Your task to perform on an android device: Open calendar and show me the second week of next month Image 0: 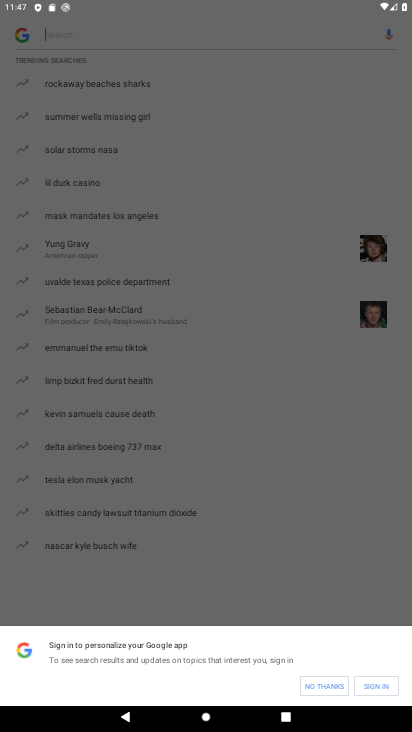
Step 0: press home button
Your task to perform on an android device: Open calendar and show me the second week of next month Image 1: 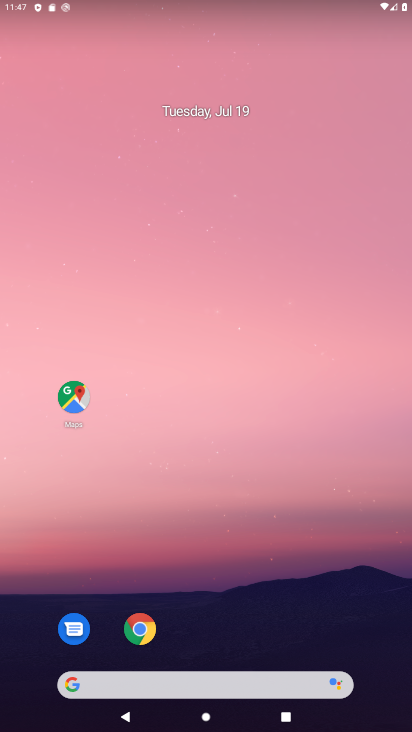
Step 1: drag from (254, 590) to (232, 181)
Your task to perform on an android device: Open calendar and show me the second week of next month Image 2: 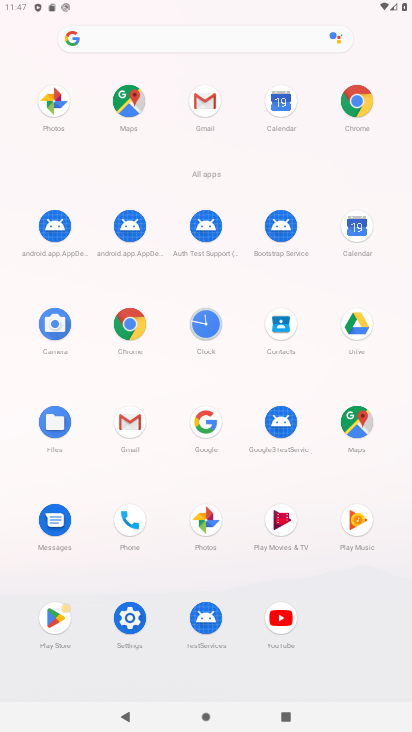
Step 2: click (358, 230)
Your task to perform on an android device: Open calendar and show me the second week of next month Image 3: 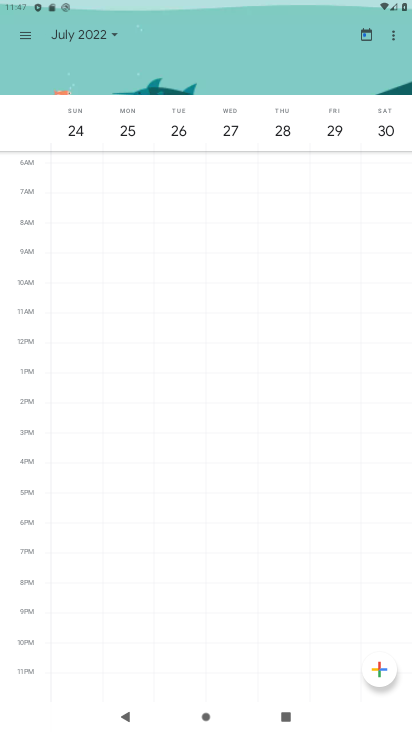
Step 3: click (25, 41)
Your task to perform on an android device: Open calendar and show me the second week of next month Image 4: 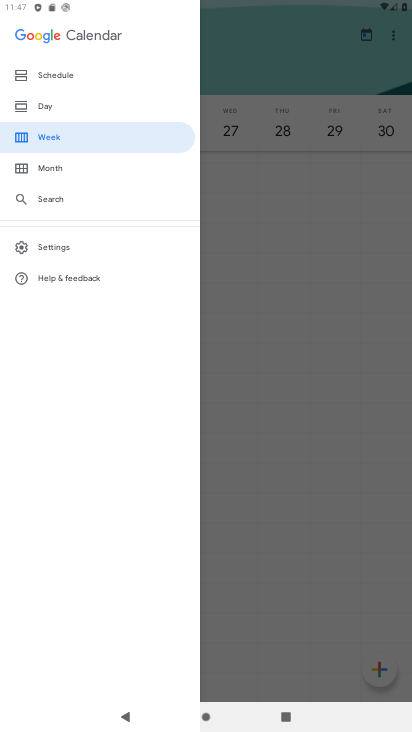
Step 4: click (63, 133)
Your task to perform on an android device: Open calendar and show me the second week of next month Image 5: 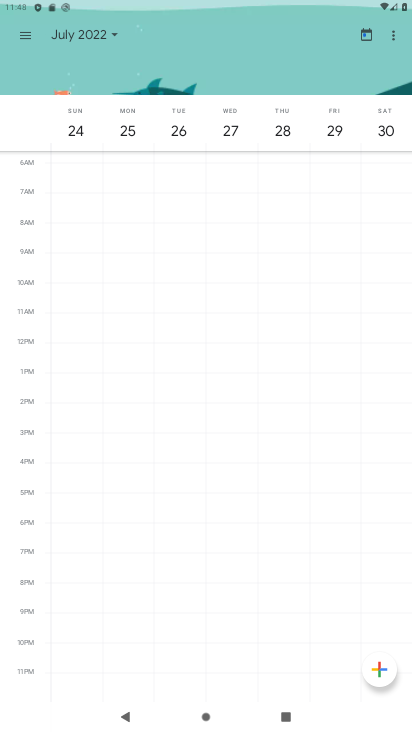
Step 5: click (112, 29)
Your task to perform on an android device: Open calendar and show me the second week of next month Image 6: 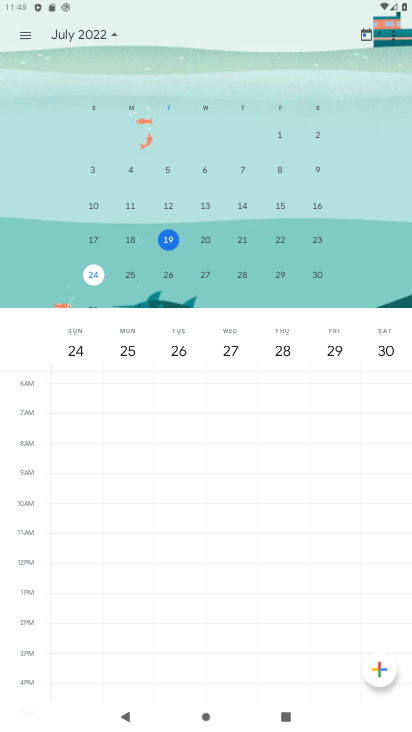
Step 6: drag from (301, 216) to (69, 192)
Your task to perform on an android device: Open calendar and show me the second week of next month Image 7: 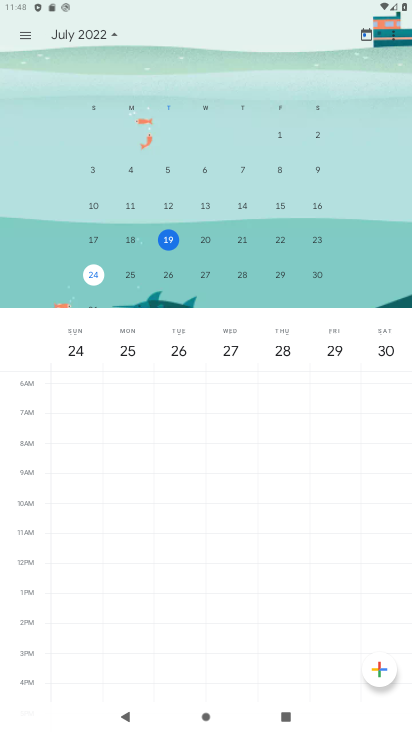
Step 7: drag from (352, 238) to (54, 213)
Your task to perform on an android device: Open calendar and show me the second week of next month Image 8: 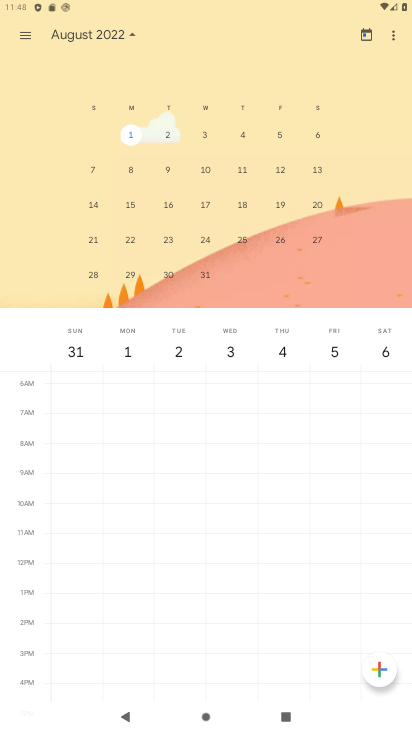
Step 8: click (165, 169)
Your task to perform on an android device: Open calendar and show me the second week of next month Image 9: 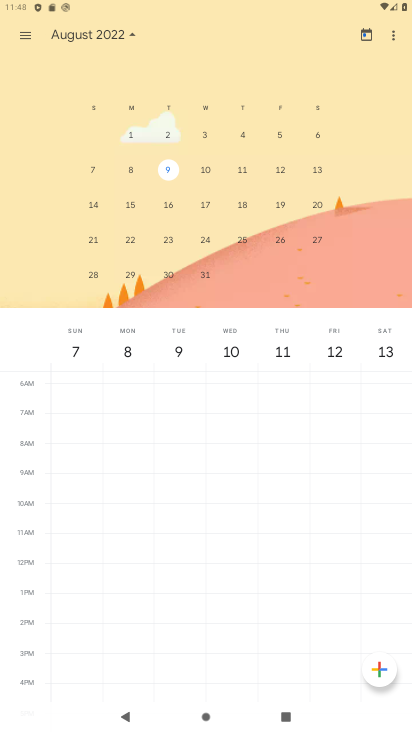
Step 9: task complete